Your task to perform on an android device: turn on the 24-hour format for clock Image 0: 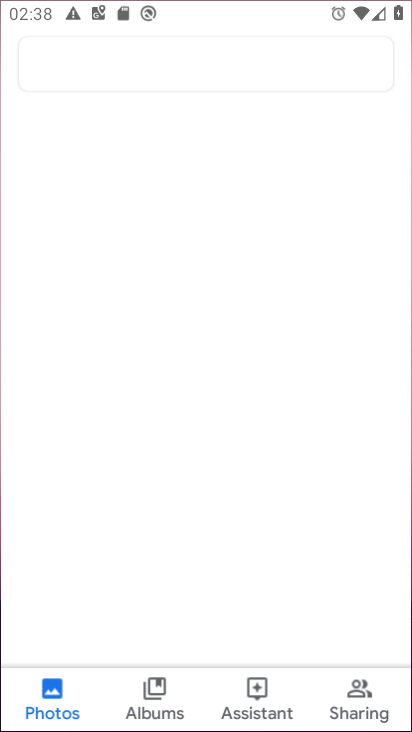
Step 0: press home button
Your task to perform on an android device: turn on the 24-hour format for clock Image 1: 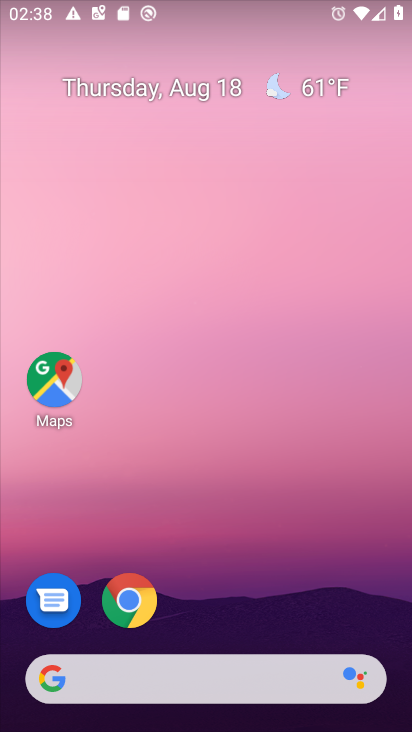
Step 1: drag from (230, 612) to (238, 8)
Your task to perform on an android device: turn on the 24-hour format for clock Image 2: 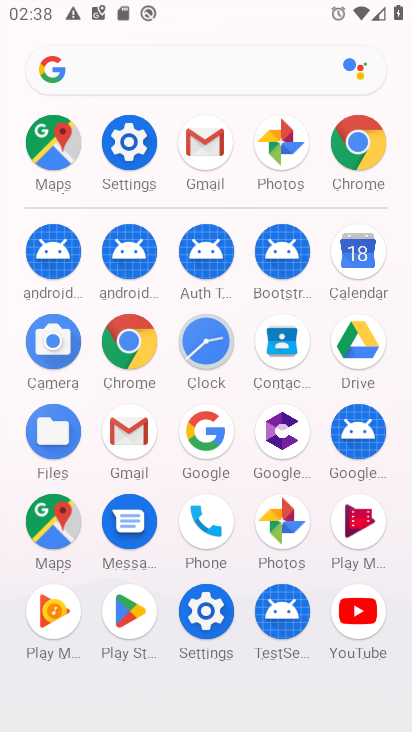
Step 2: click (207, 338)
Your task to perform on an android device: turn on the 24-hour format for clock Image 3: 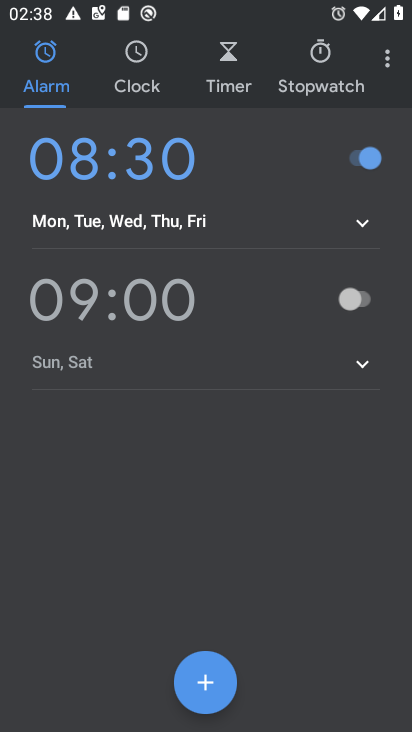
Step 3: click (387, 57)
Your task to perform on an android device: turn on the 24-hour format for clock Image 4: 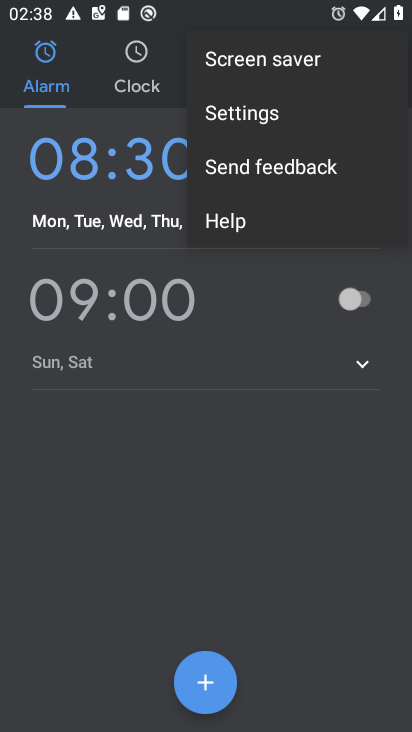
Step 4: click (273, 111)
Your task to perform on an android device: turn on the 24-hour format for clock Image 5: 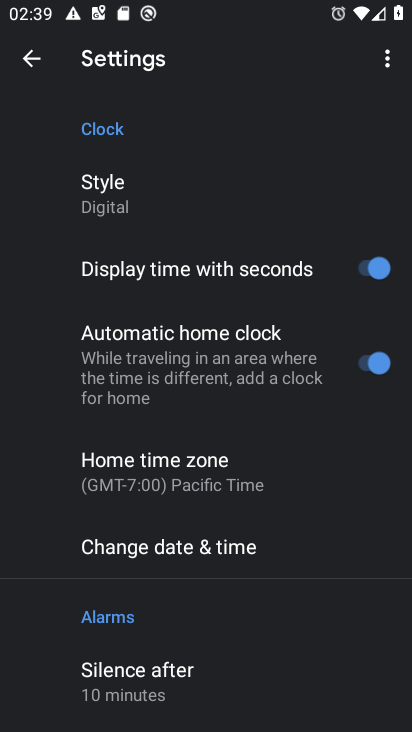
Step 5: click (194, 546)
Your task to perform on an android device: turn on the 24-hour format for clock Image 6: 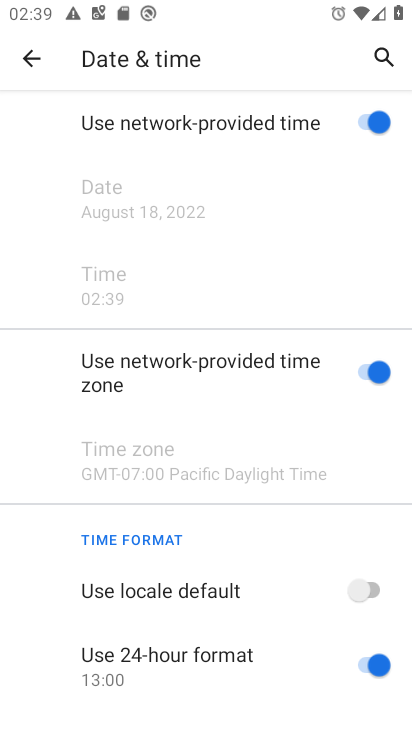
Step 6: task complete